Your task to perform on an android device: Search for pizza restaurants on Maps Image 0: 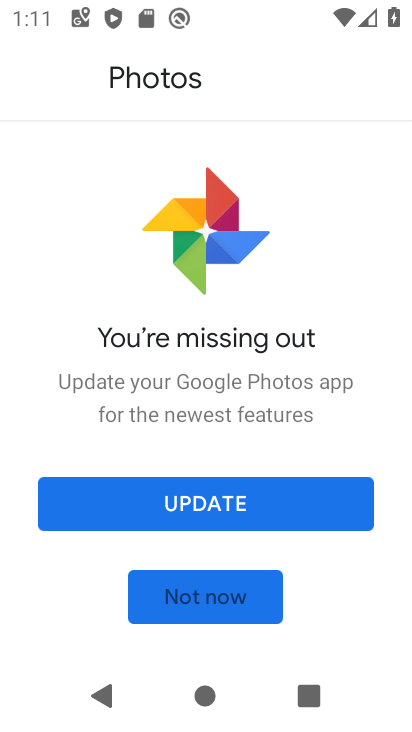
Step 0: press home button
Your task to perform on an android device: Search for pizza restaurants on Maps Image 1: 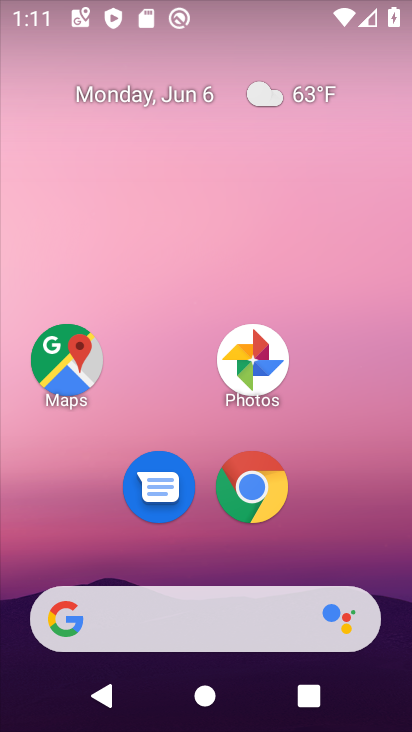
Step 1: click (51, 380)
Your task to perform on an android device: Search for pizza restaurants on Maps Image 2: 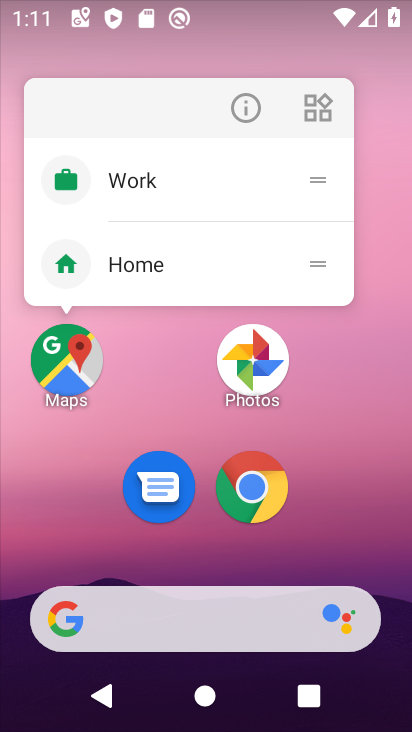
Step 2: click (57, 374)
Your task to perform on an android device: Search for pizza restaurants on Maps Image 3: 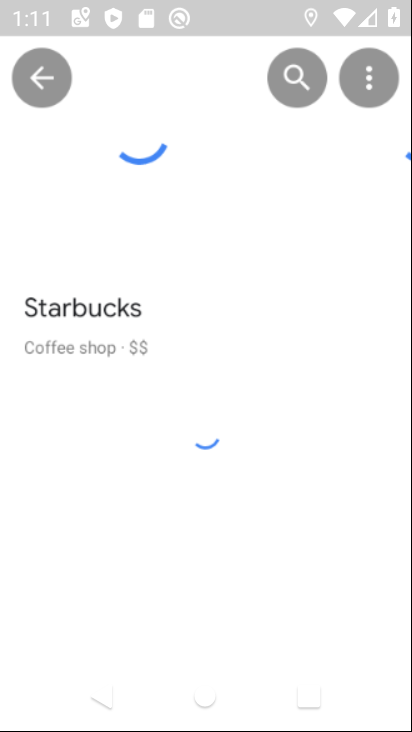
Step 3: click (50, 68)
Your task to perform on an android device: Search for pizza restaurants on Maps Image 4: 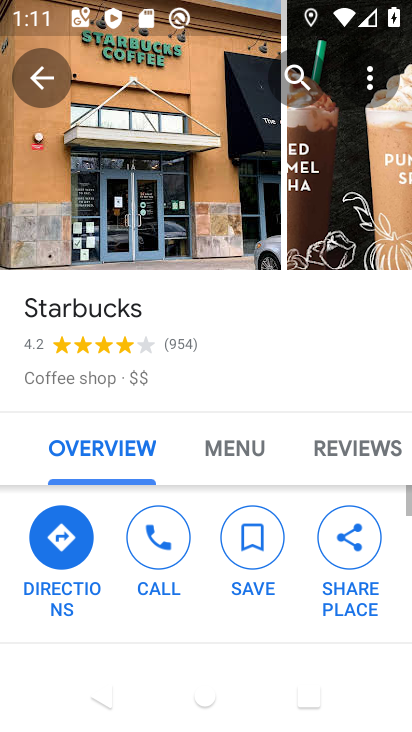
Step 4: click (31, 98)
Your task to perform on an android device: Search for pizza restaurants on Maps Image 5: 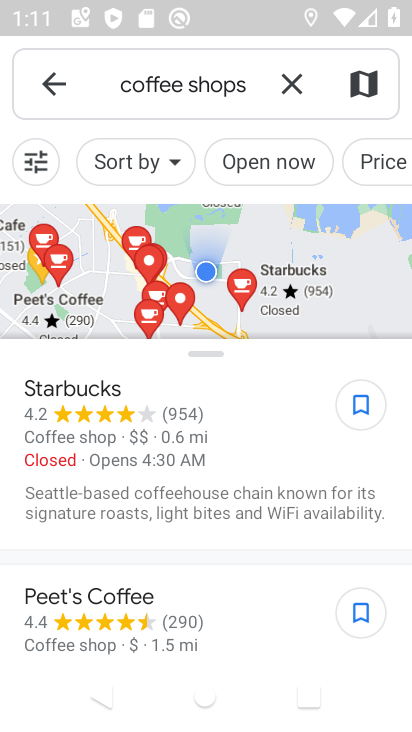
Step 5: click (305, 80)
Your task to perform on an android device: Search for pizza restaurants on Maps Image 6: 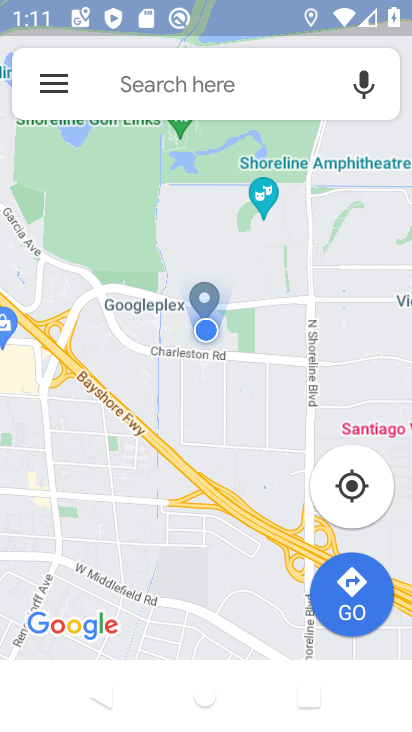
Step 6: click (305, 78)
Your task to perform on an android device: Search for pizza restaurants on Maps Image 7: 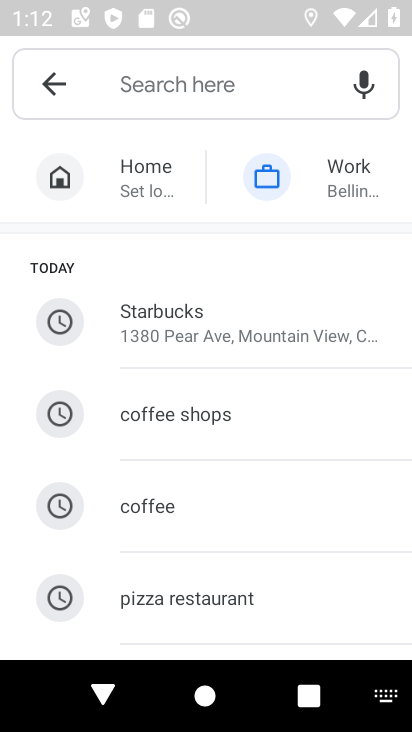
Step 7: type "Pizza restaurants"
Your task to perform on an android device: Search for pizza restaurants on Maps Image 8: 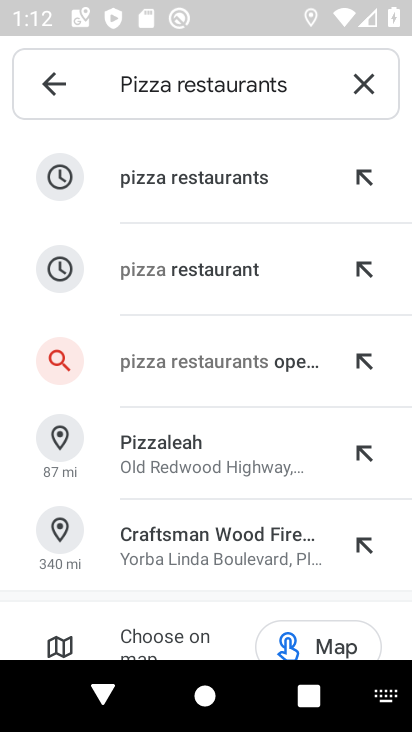
Step 8: click (244, 210)
Your task to perform on an android device: Search for pizza restaurants on Maps Image 9: 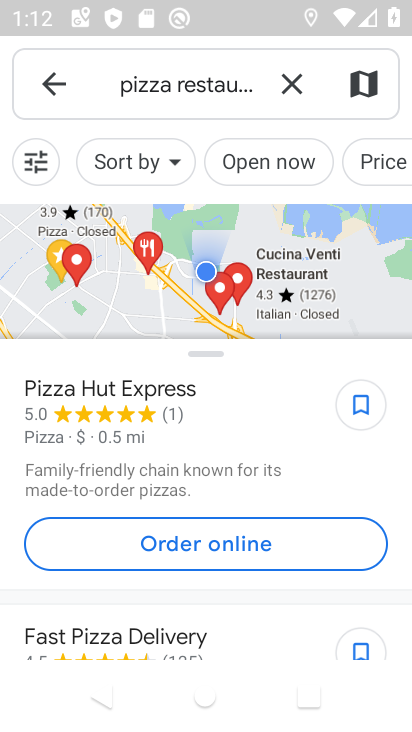
Step 9: task complete